Your task to perform on an android device: Open privacy settings Image 0: 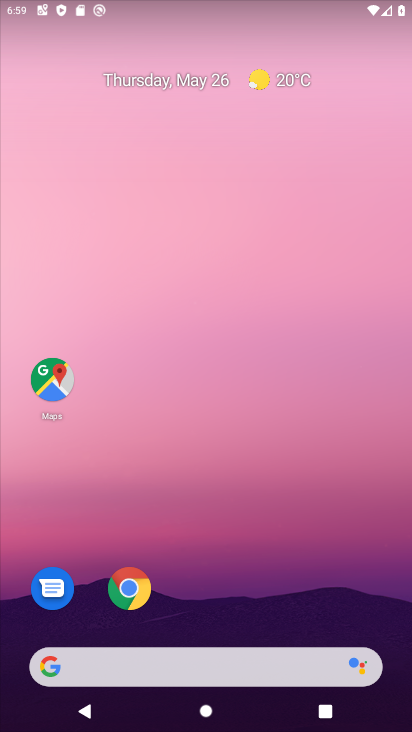
Step 0: drag from (372, 605) to (260, 101)
Your task to perform on an android device: Open privacy settings Image 1: 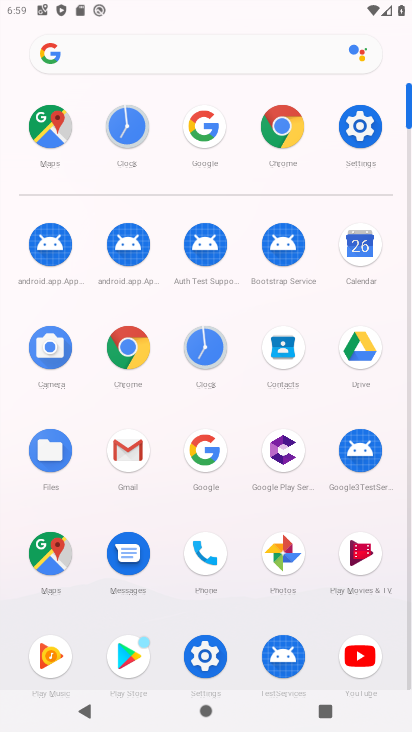
Step 1: click (349, 129)
Your task to perform on an android device: Open privacy settings Image 2: 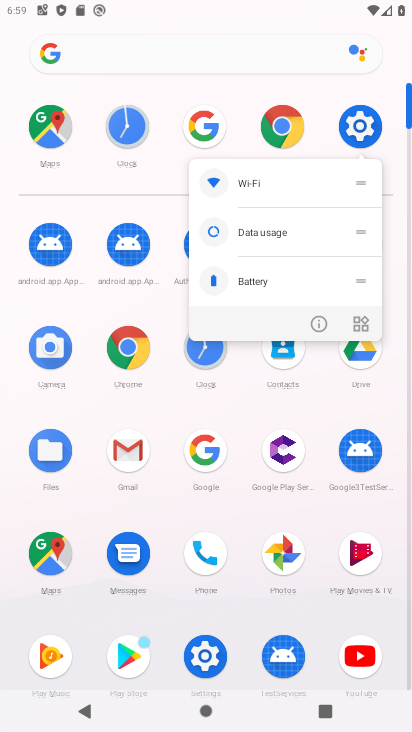
Step 2: click (349, 128)
Your task to perform on an android device: Open privacy settings Image 3: 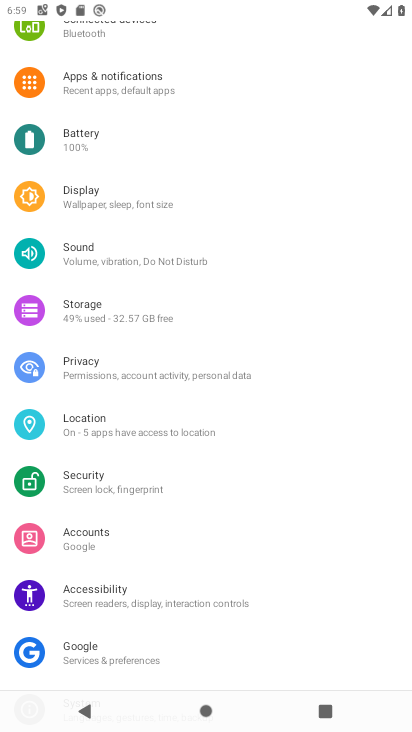
Step 3: click (83, 393)
Your task to perform on an android device: Open privacy settings Image 4: 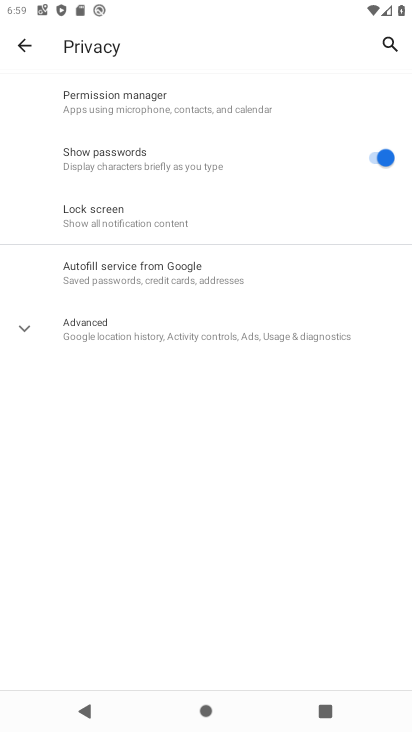
Step 4: task complete